Your task to perform on an android device: turn off sleep mode Image 0: 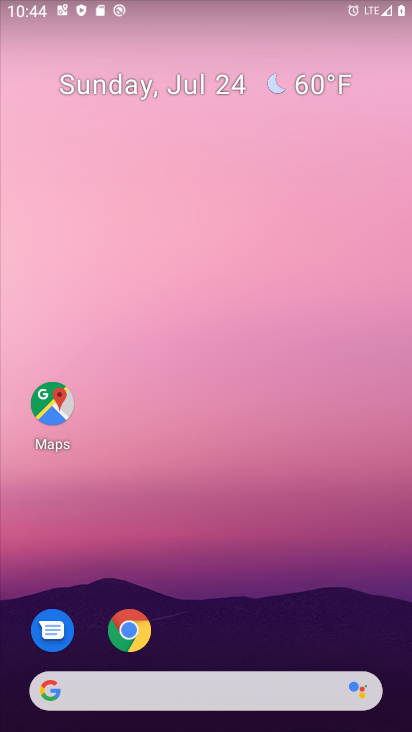
Step 0: drag from (171, 392) to (260, 0)
Your task to perform on an android device: turn off sleep mode Image 1: 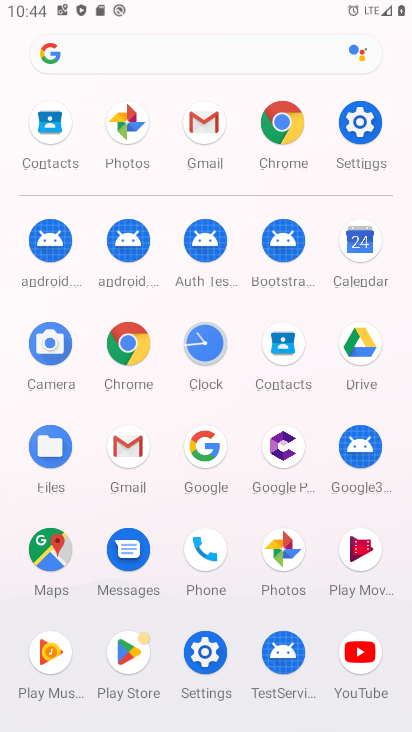
Step 1: click (201, 656)
Your task to perform on an android device: turn off sleep mode Image 2: 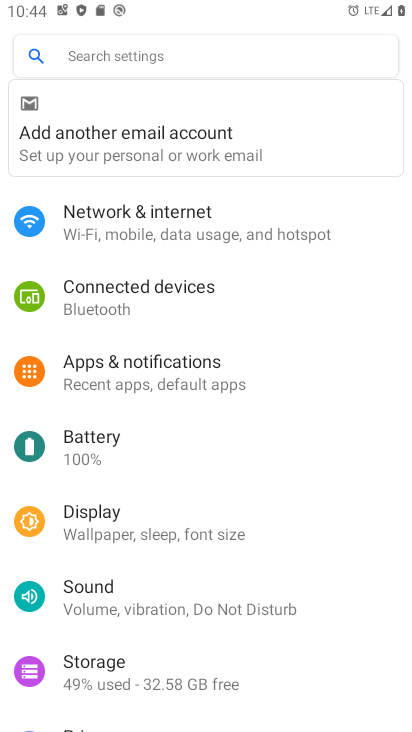
Step 2: click (141, 49)
Your task to perform on an android device: turn off sleep mode Image 3: 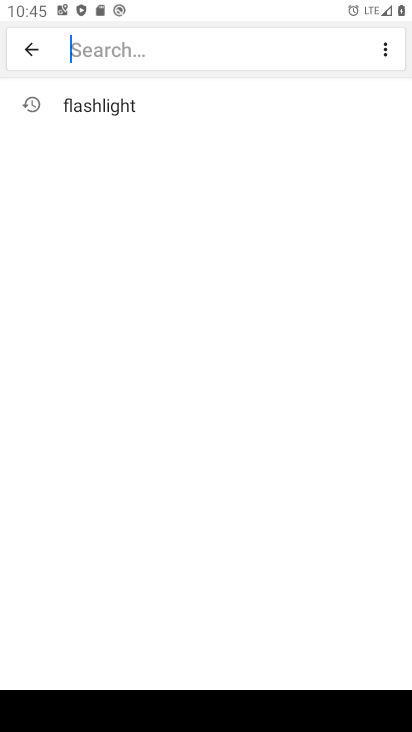
Step 3: type "sleep mode"
Your task to perform on an android device: turn off sleep mode Image 4: 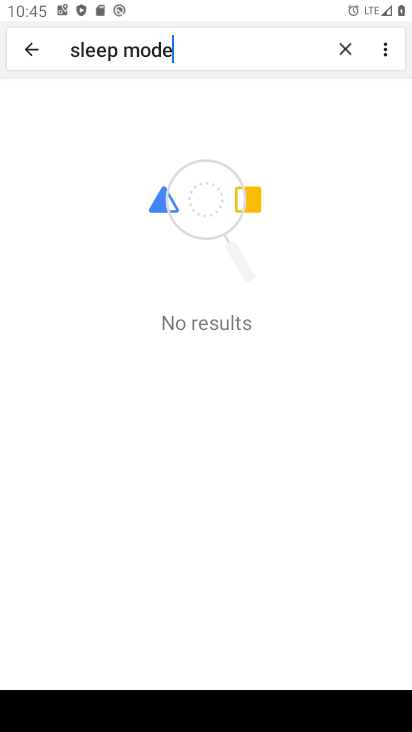
Step 4: task complete